Your task to perform on an android device: What is the capital of Canada? Image 0: 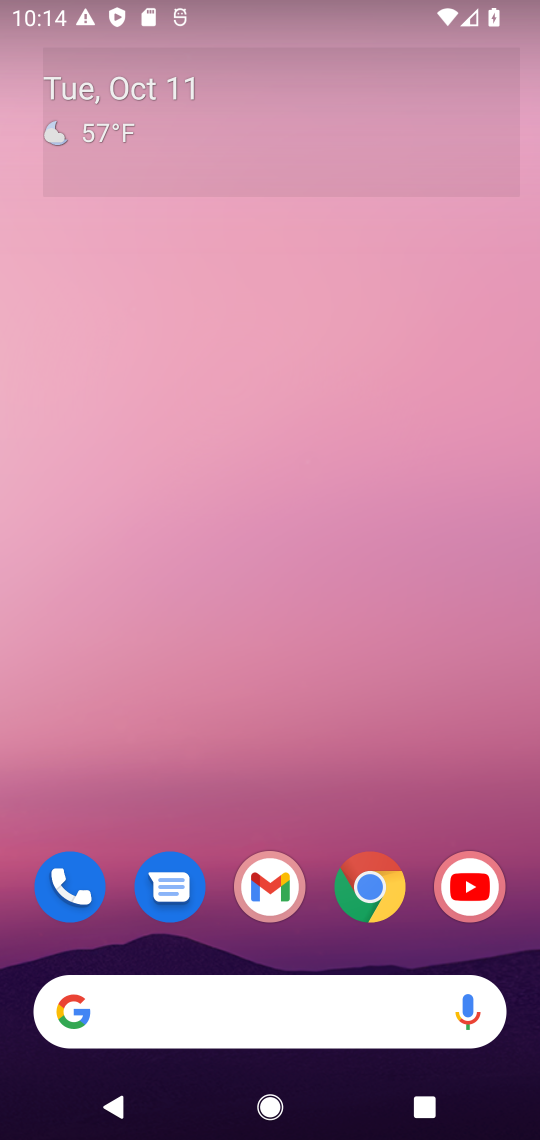
Step 0: press home button
Your task to perform on an android device: What is the capital of Canada? Image 1: 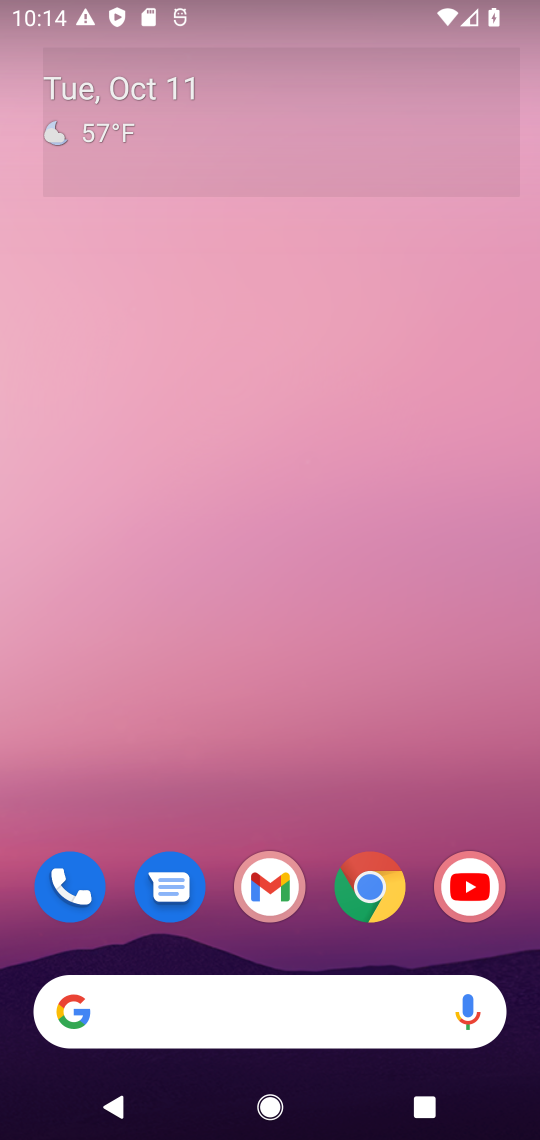
Step 1: click (111, 1004)
Your task to perform on an android device: What is the capital of Canada? Image 2: 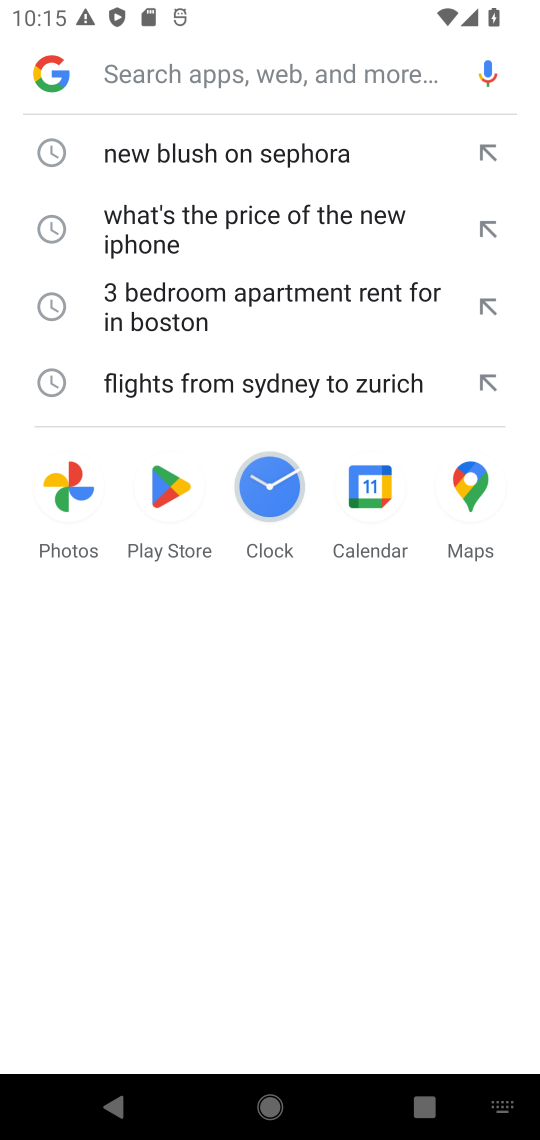
Step 2: press enter
Your task to perform on an android device: What is the capital of Canada? Image 3: 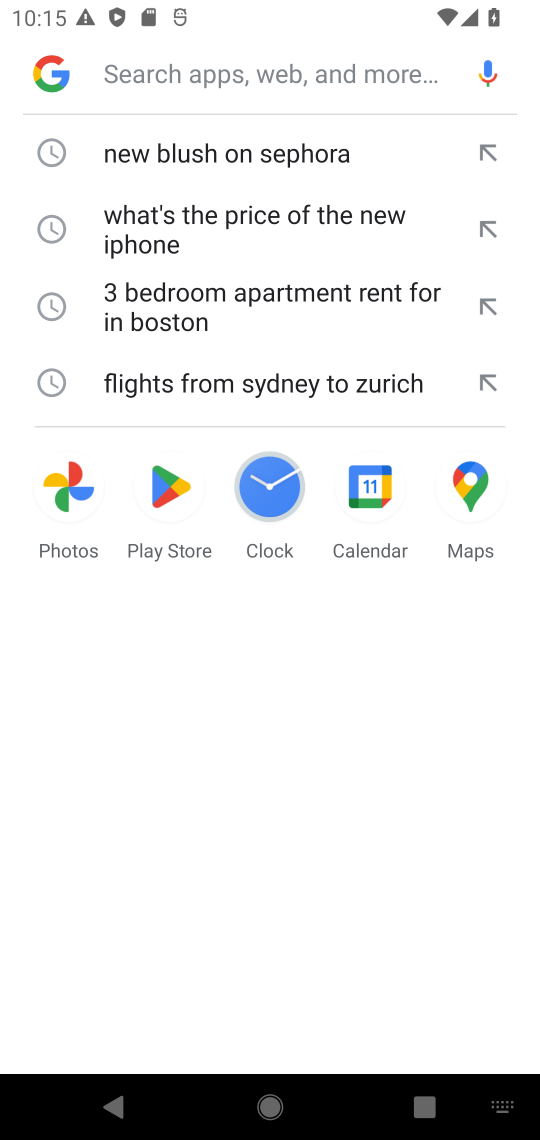
Step 3: type "What is the capital of Canada"
Your task to perform on an android device: What is the capital of Canada? Image 4: 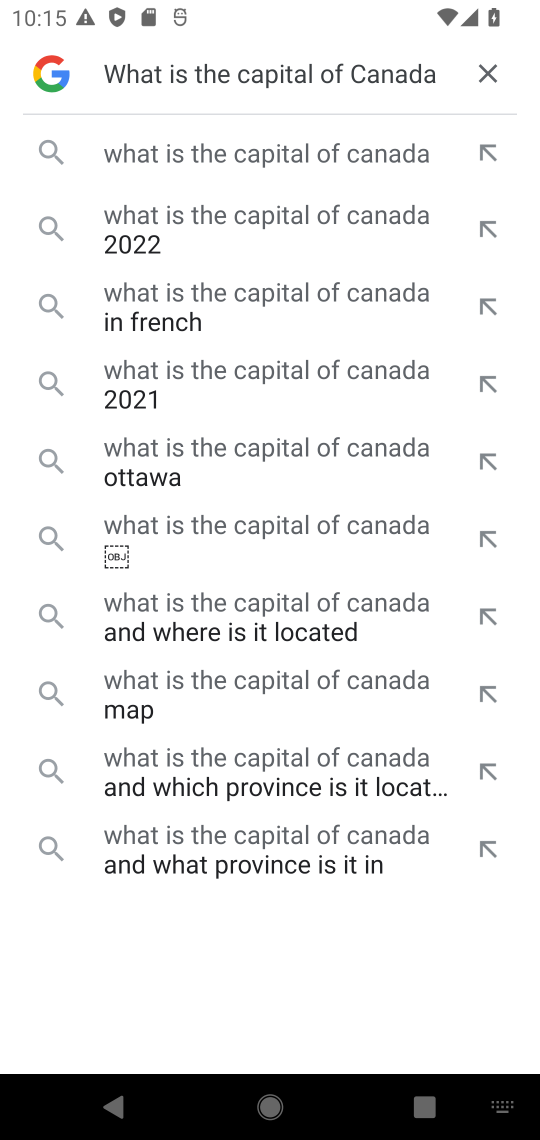
Step 4: press enter
Your task to perform on an android device: What is the capital of Canada? Image 5: 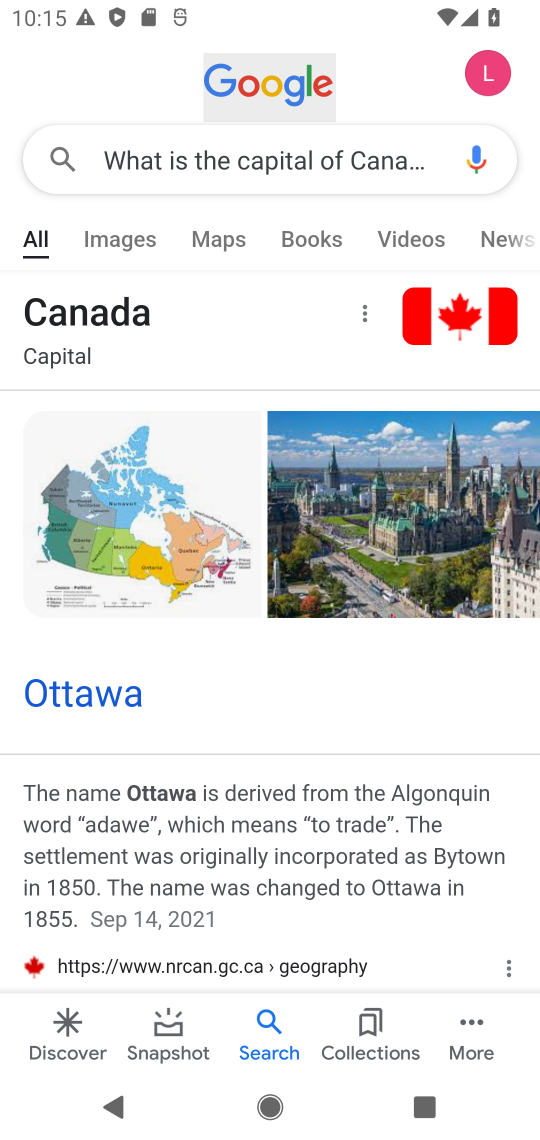
Step 5: task complete